Your task to perform on an android device: turn on notifications settings in the gmail app Image 0: 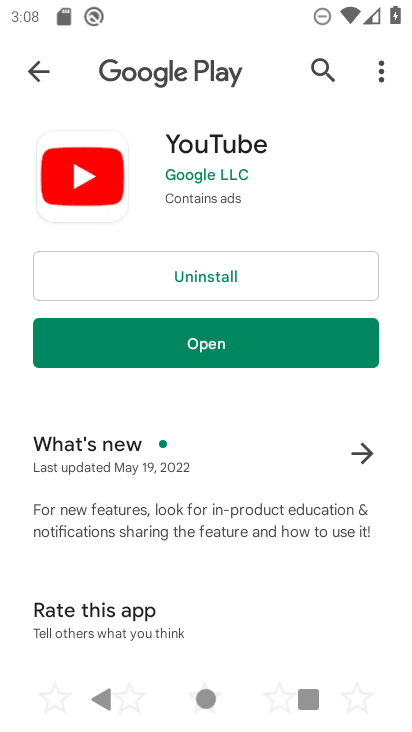
Step 0: press home button
Your task to perform on an android device: turn on notifications settings in the gmail app Image 1: 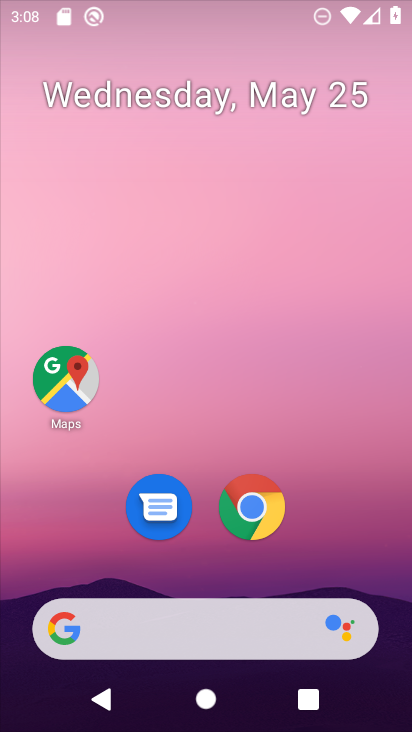
Step 1: drag from (248, 619) to (153, 21)
Your task to perform on an android device: turn on notifications settings in the gmail app Image 2: 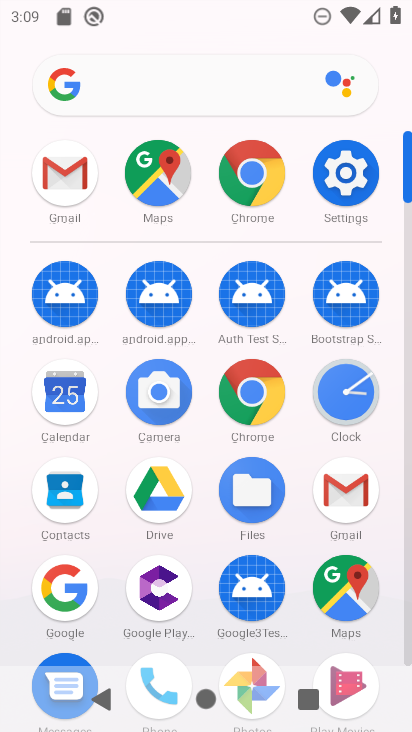
Step 2: click (367, 506)
Your task to perform on an android device: turn on notifications settings in the gmail app Image 3: 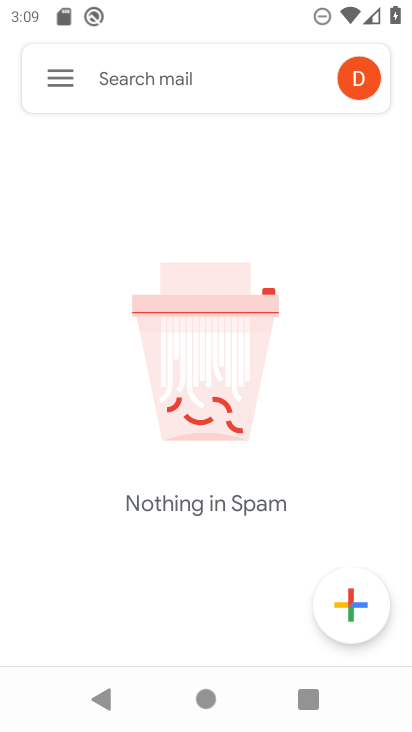
Step 3: click (64, 86)
Your task to perform on an android device: turn on notifications settings in the gmail app Image 4: 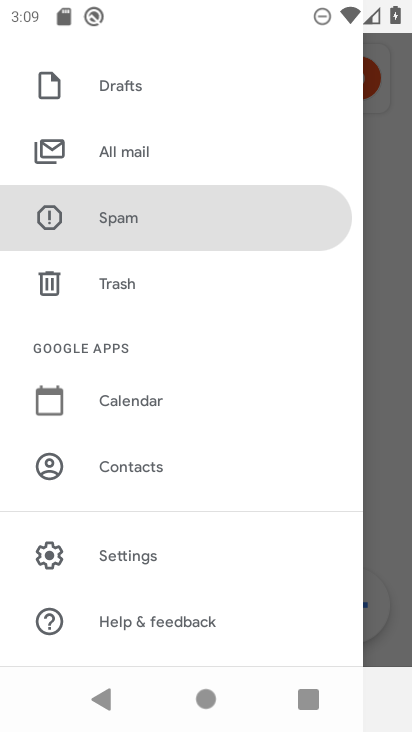
Step 4: click (149, 556)
Your task to perform on an android device: turn on notifications settings in the gmail app Image 5: 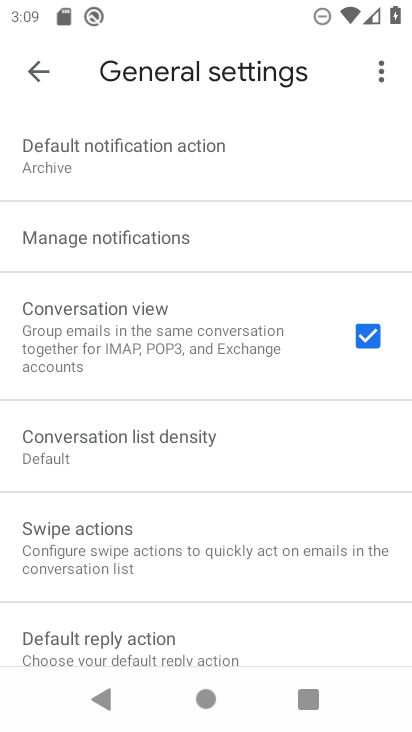
Step 5: click (211, 240)
Your task to perform on an android device: turn on notifications settings in the gmail app Image 6: 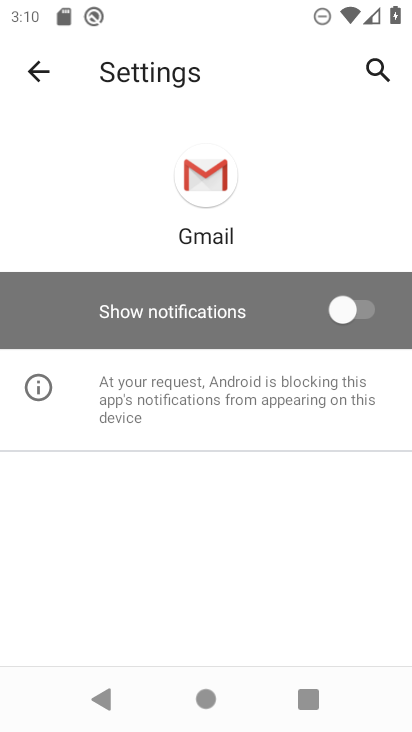
Step 6: click (362, 313)
Your task to perform on an android device: turn on notifications settings in the gmail app Image 7: 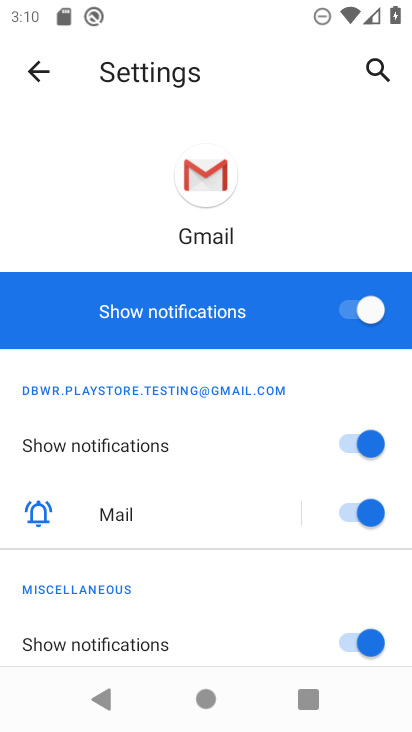
Step 7: task complete